Your task to perform on an android device: star an email in the gmail app Image 0: 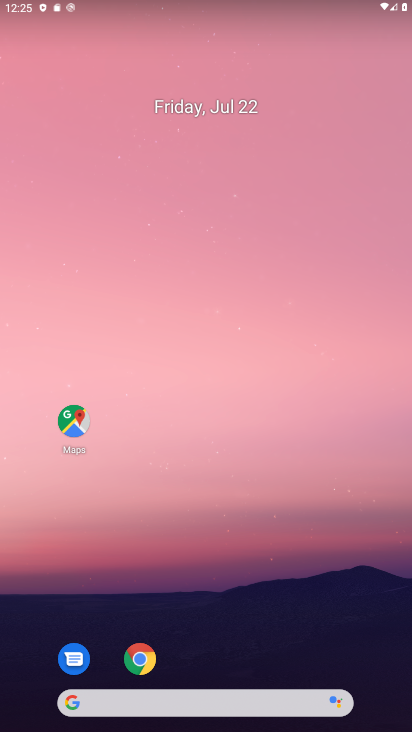
Step 0: drag from (294, 659) to (292, 263)
Your task to perform on an android device: star an email in the gmail app Image 1: 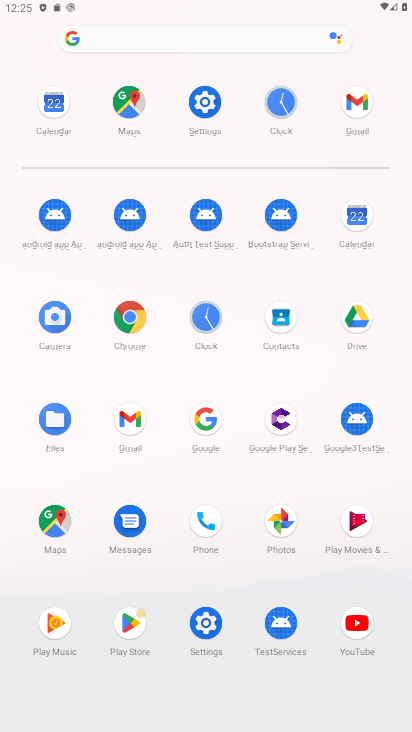
Step 1: click (356, 138)
Your task to perform on an android device: star an email in the gmail app Image 2: 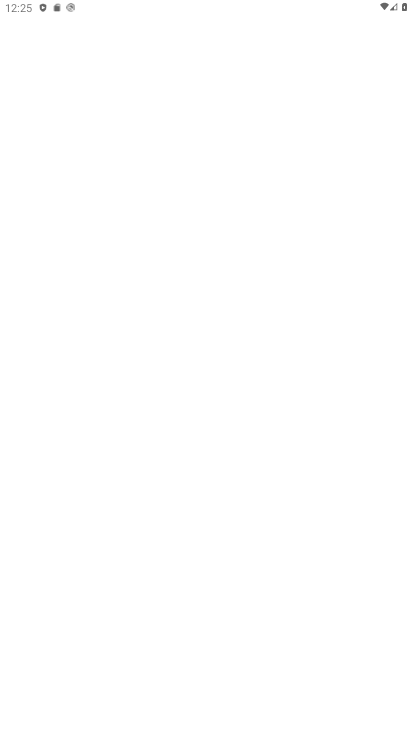
Step 2: task complete